Your task to perform on an android device: open device folders in google photos Image 0: 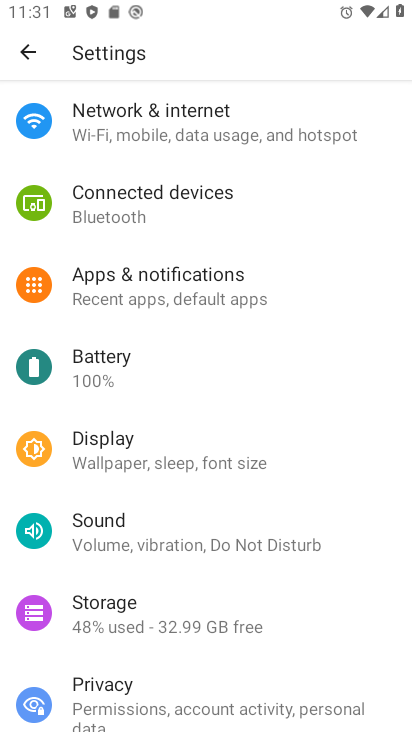
Step 0: press home button
Your task to perform on an android device: open device folders in google photos Image 1: 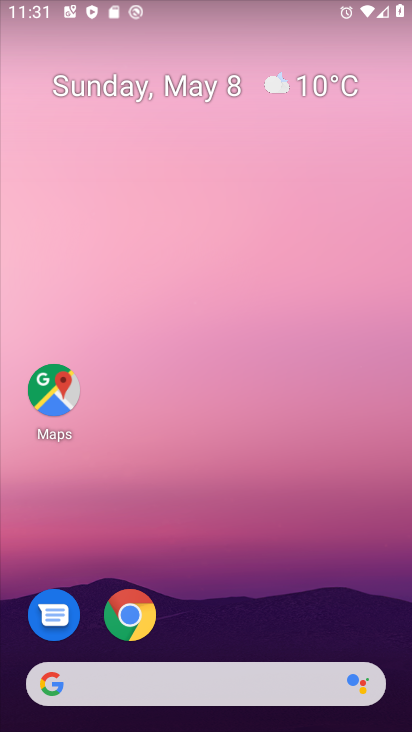
Step 1: drag from (303, 726) to (340, 209)
Your task to perform on an android device: open device folders in google photos Image 2: 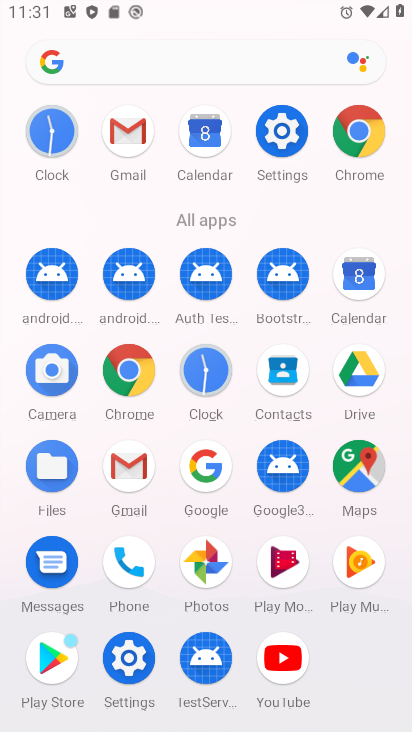
Step 2: click (216, 555)
Your task to perform on an android device: open device folders in google photos Image 3: 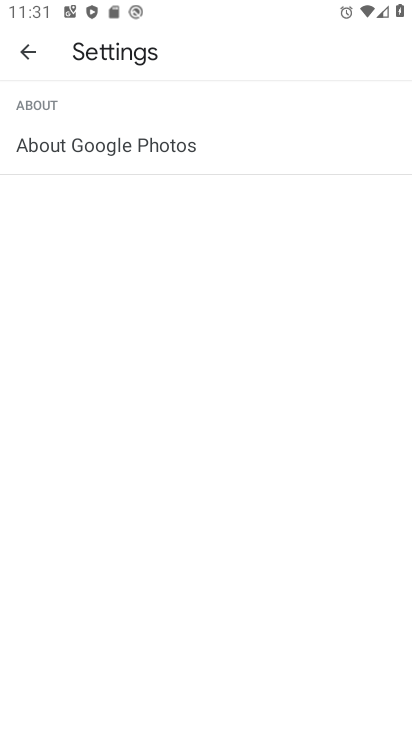
Step 3: click (34, 41)
Your task to perform on an android device: open device folders in google photos Image 4: 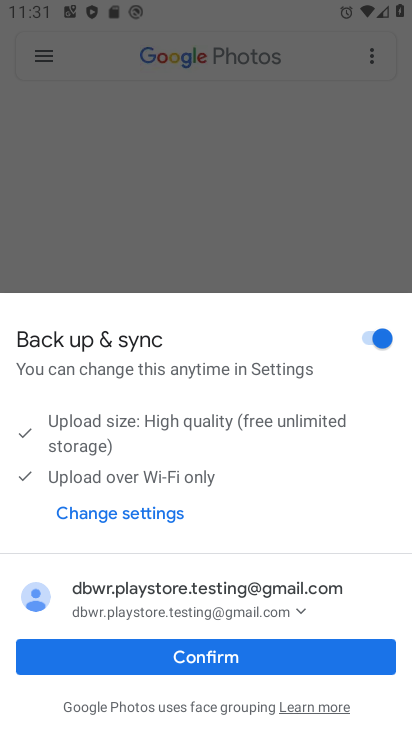
Step 4: click (228, 651)
Your task to perform on an android device: open device folders in google photos Image 5: 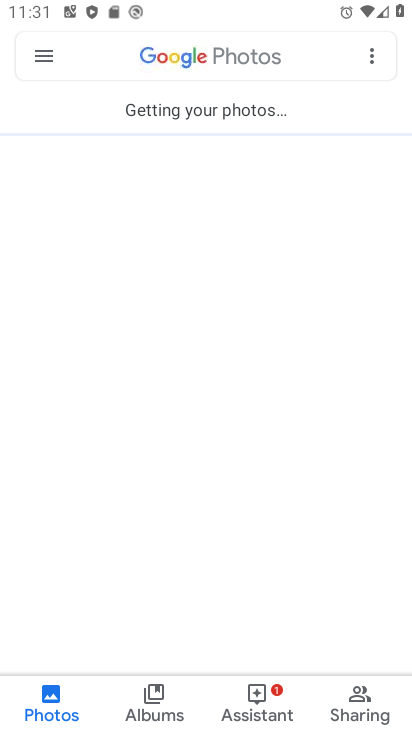
Step 5: click (50, 52)
Your task to perform on an android device: open device folders in google photos Image 6: 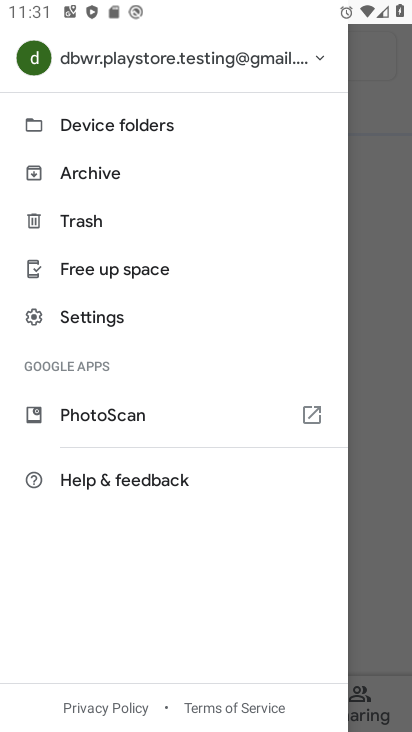
Step 6: click (132, 119)
Your task to perform on an android device: open device folders in google photos Image 7: 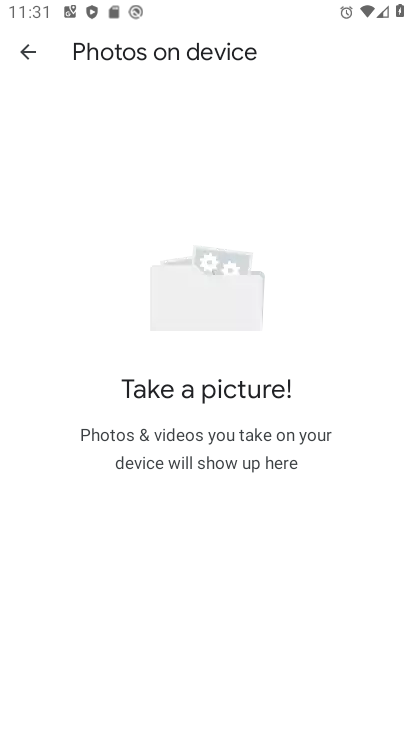
Step 7: task complete